Your task to perform on an android device: Open CNN.com Image 0: 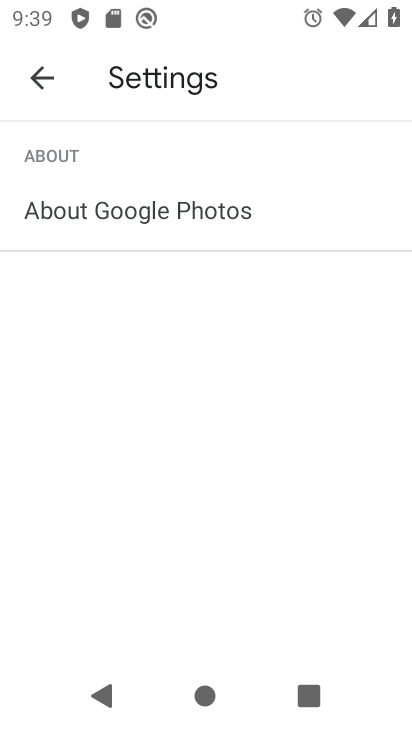
Step 0: press home button
Your task to perform on an android device: Open CNN.com Image 1: 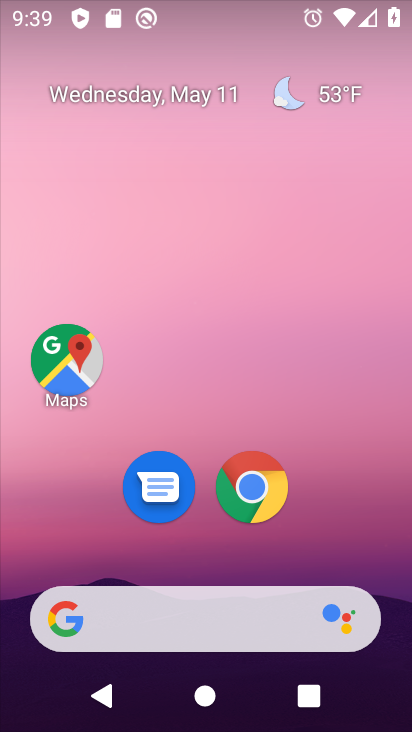
Step 1: click (255, 514)
Your task to perform on an android device: Open CNN.com Image 2: 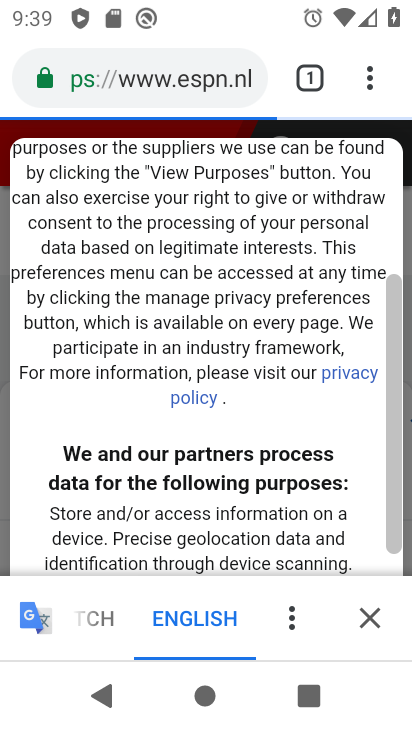
Step 2: click (308, 86)
Your task to perform on an android device: Open CNN.com Image 3: 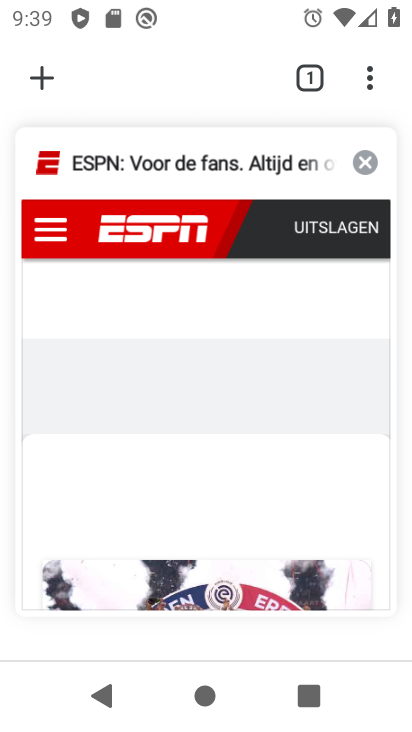
Step 3: click (42, 83)
Your task to perform on an android device: Open CNN.com Image 4: 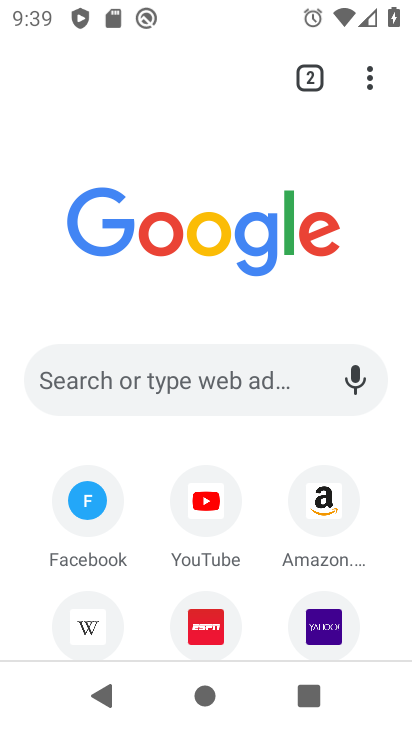
Step 4: click (121, 367)
Your task to perform on an android device: Open CNN.com Image 5: 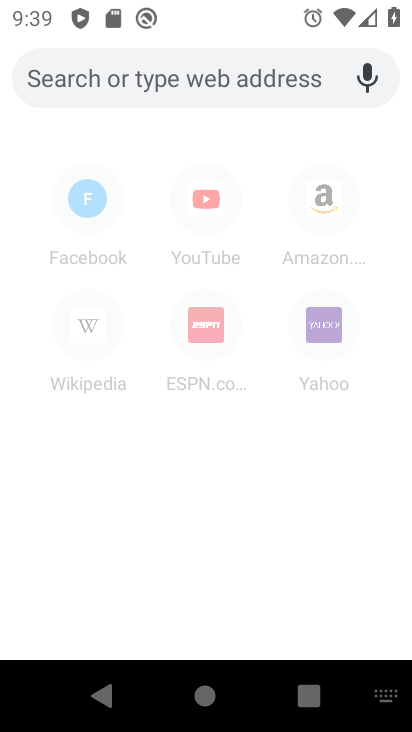
Step 5: type "CNN.com"
Your task to perform on an android device: Open CNN.com Image 6: 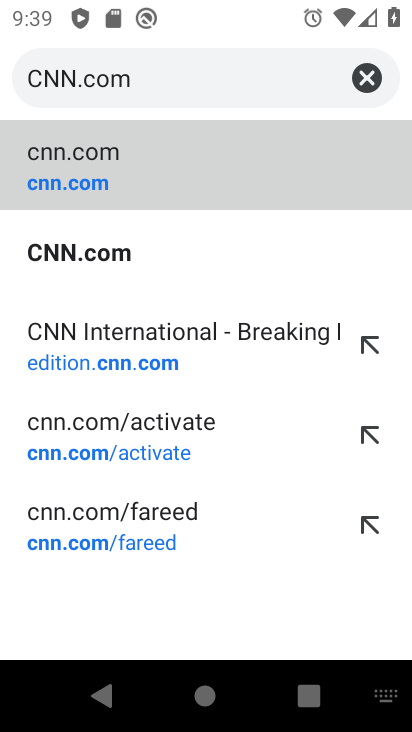
Step 6: click (168, 142)
Your task to perform on an android device: Open CNN.com Image 7: 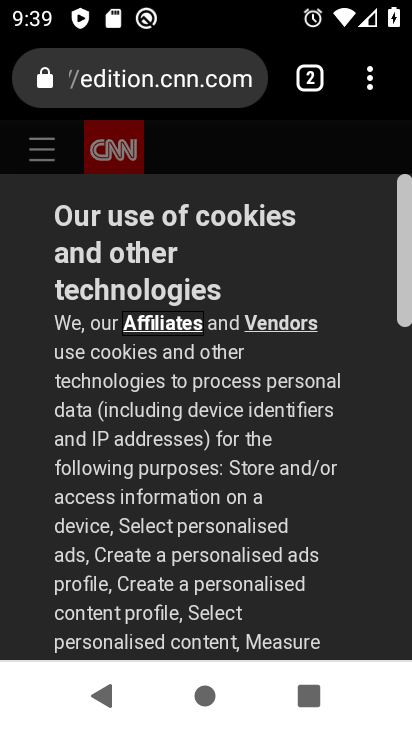
Step 7: task complete